Your task to perform on an android device: check storage Image 0: 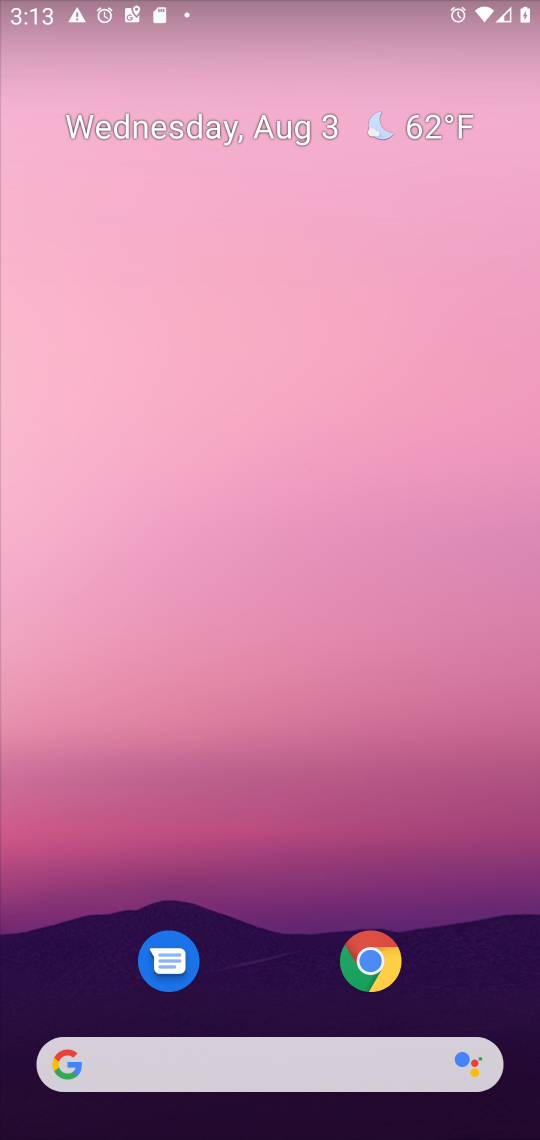
Step 0: drag from (294, 963) to (291, 10)
Your task to perform on an android device: check storage Image 1: 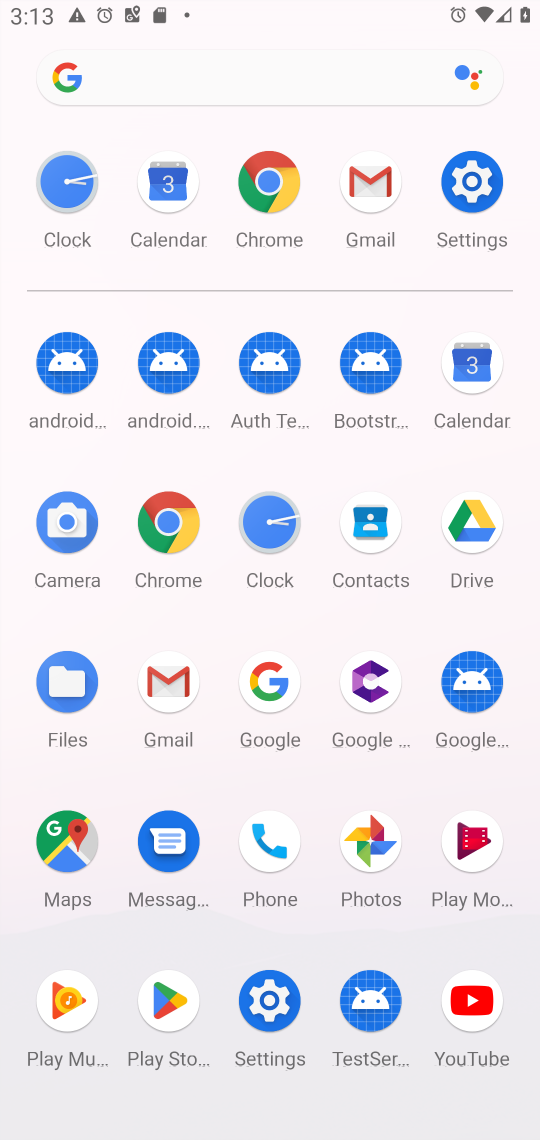
Step 1: click (473, 250)
Your task to perform on an android device: check storage Image 2: 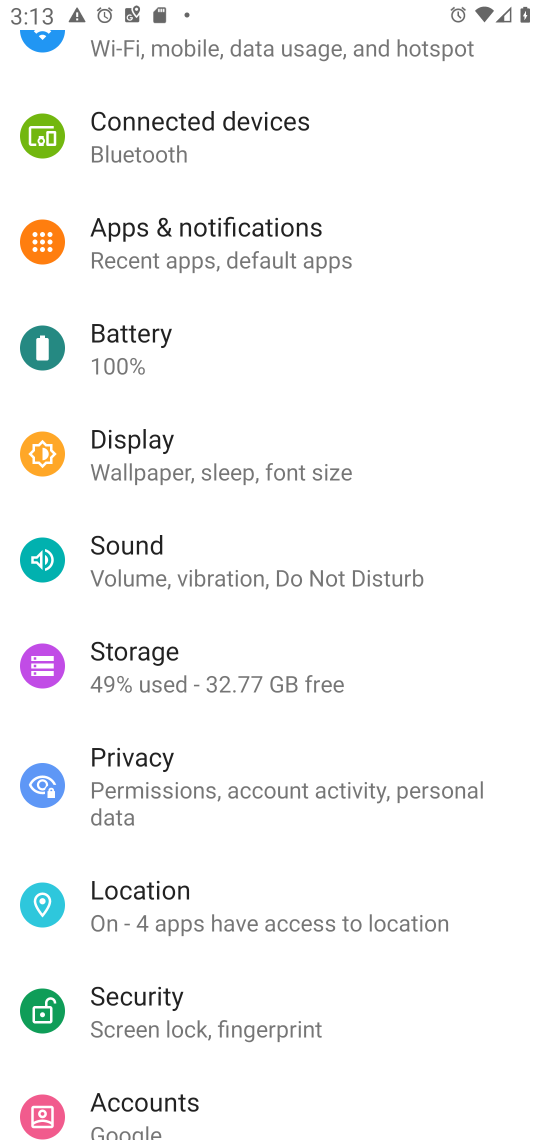
Step 2: click (156, 679)
Your task to perform on an android device: check storage Image 3: 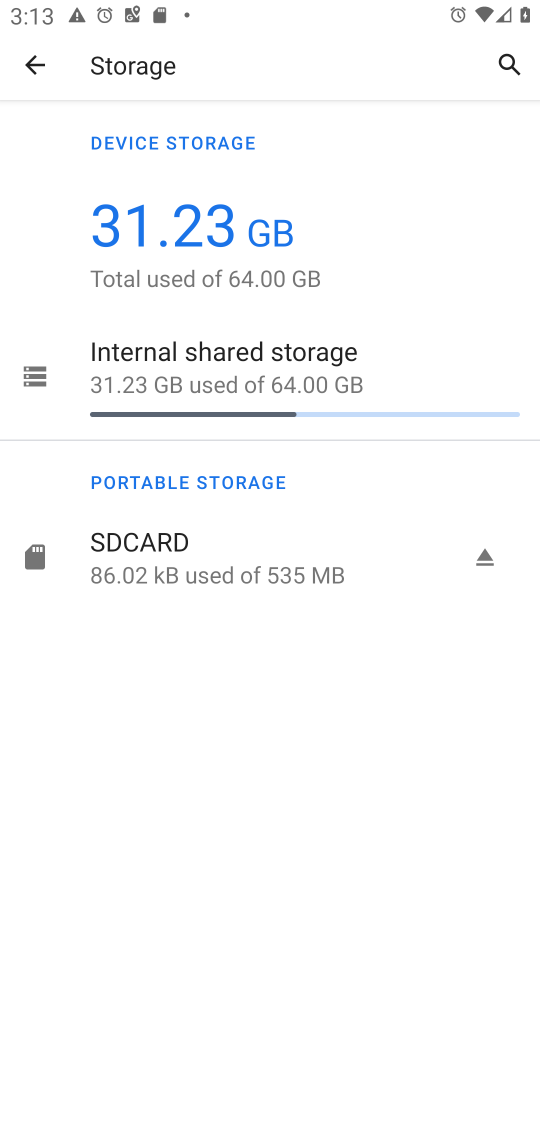
Step 3: task complete